Your task to perform on an android device: Go to notification settings Image 0: 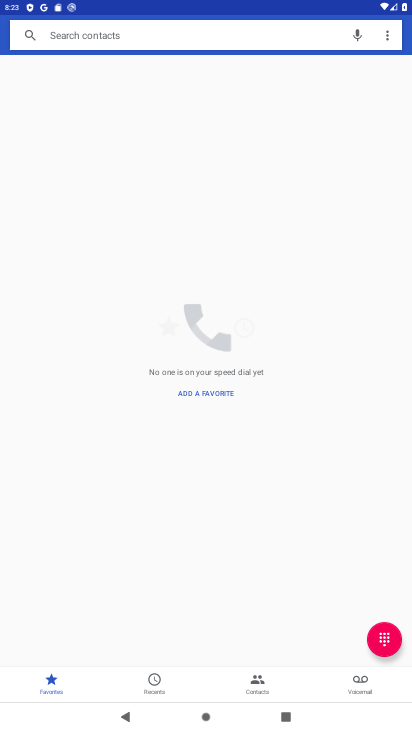
Step 0: press home button
Your task to perform on an android device: Go to notification settings Image 1: 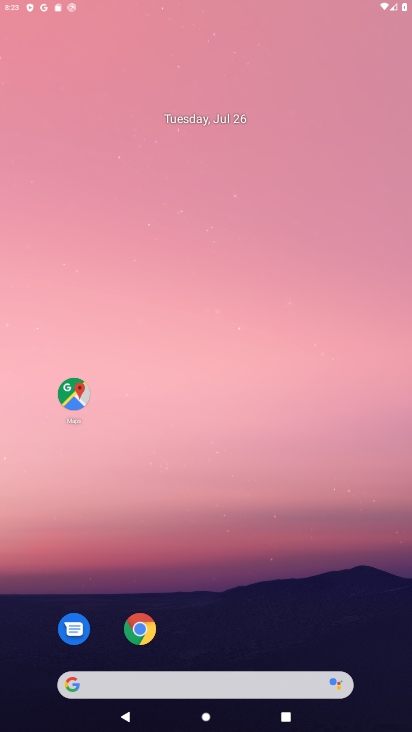
Step 1: drag from (298, 597) to (309, 21)
Your task to perform on an android device: Go to notification settings Image 2: 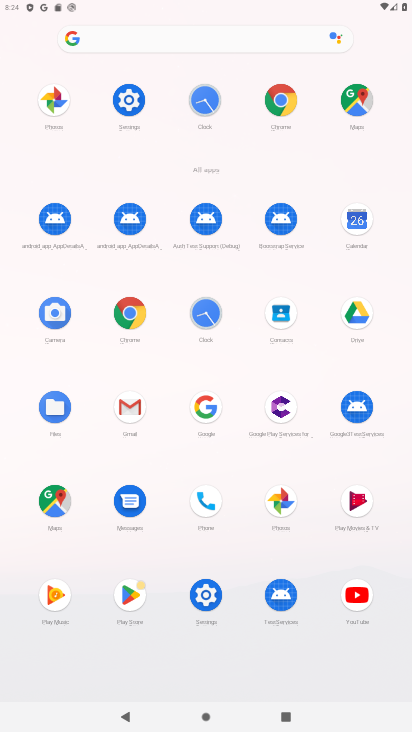
Step 2: click (141, 113)
Your task to perform on an android device: Go to notification settings Image 3: 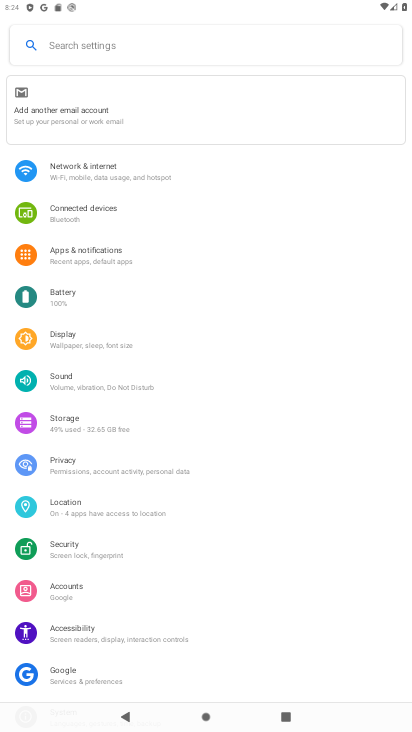
Step 3: click (48, 266)
Your task to perform on an android device: Go to notification settings Image 4: 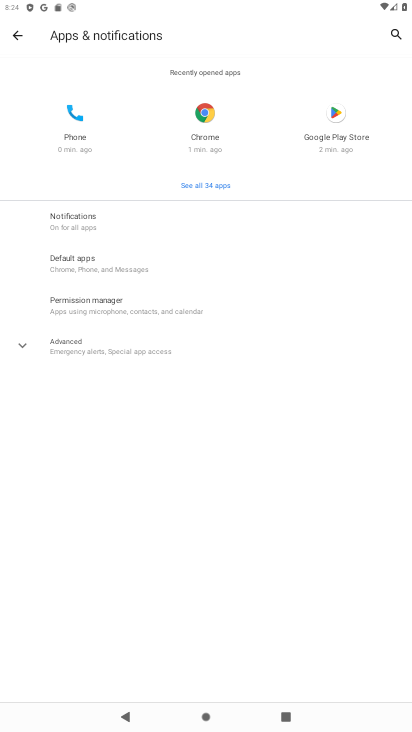
Step 4: click (57, 215)
Your task to perform on an android device: Go to notification settings Image 5: 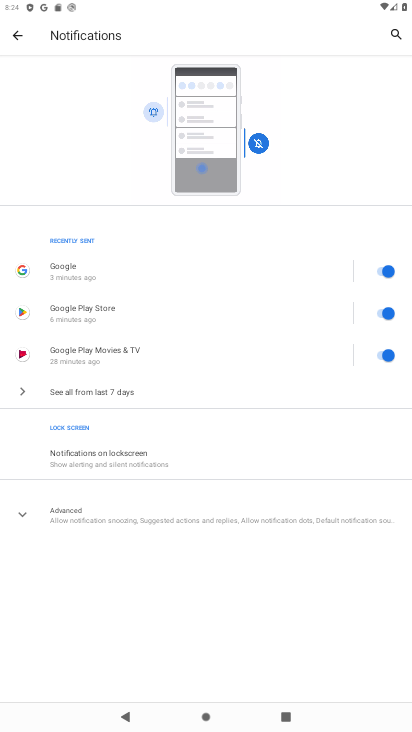
Step 5: task complete